Your task to perform on an android device: Clear all items from cart on ebay. Add "acer nitro" to the cart on ebay Image 0: 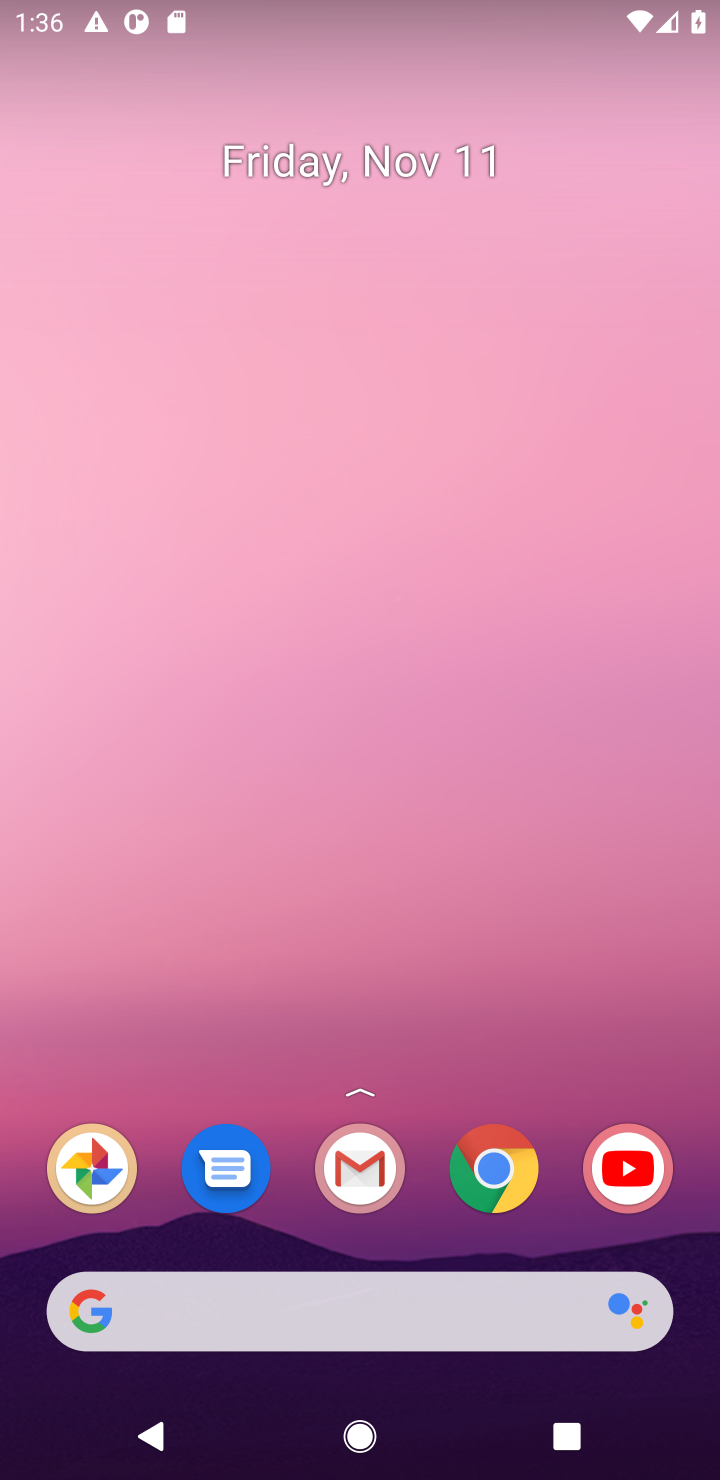
Step 0: click (497, 1171)
Your task to perform on an android device: Clear all items from cart on ebay. Add "acer nitro" to the cart on ebay Image 1: 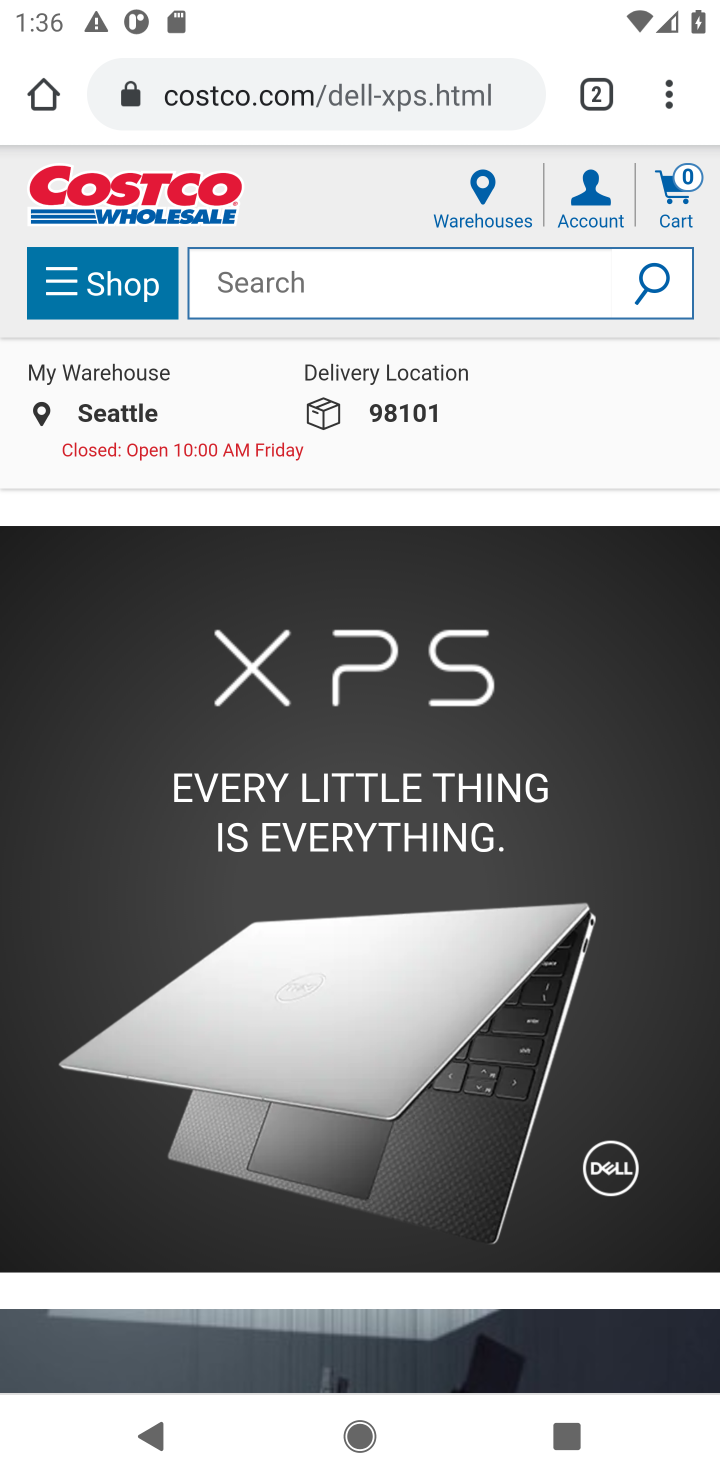
Step 1: click (342, 112)
Your task to perform on an android device: Clear all items from cart on ebay. Add "acer nitro" to the cart on ebay Image 2: 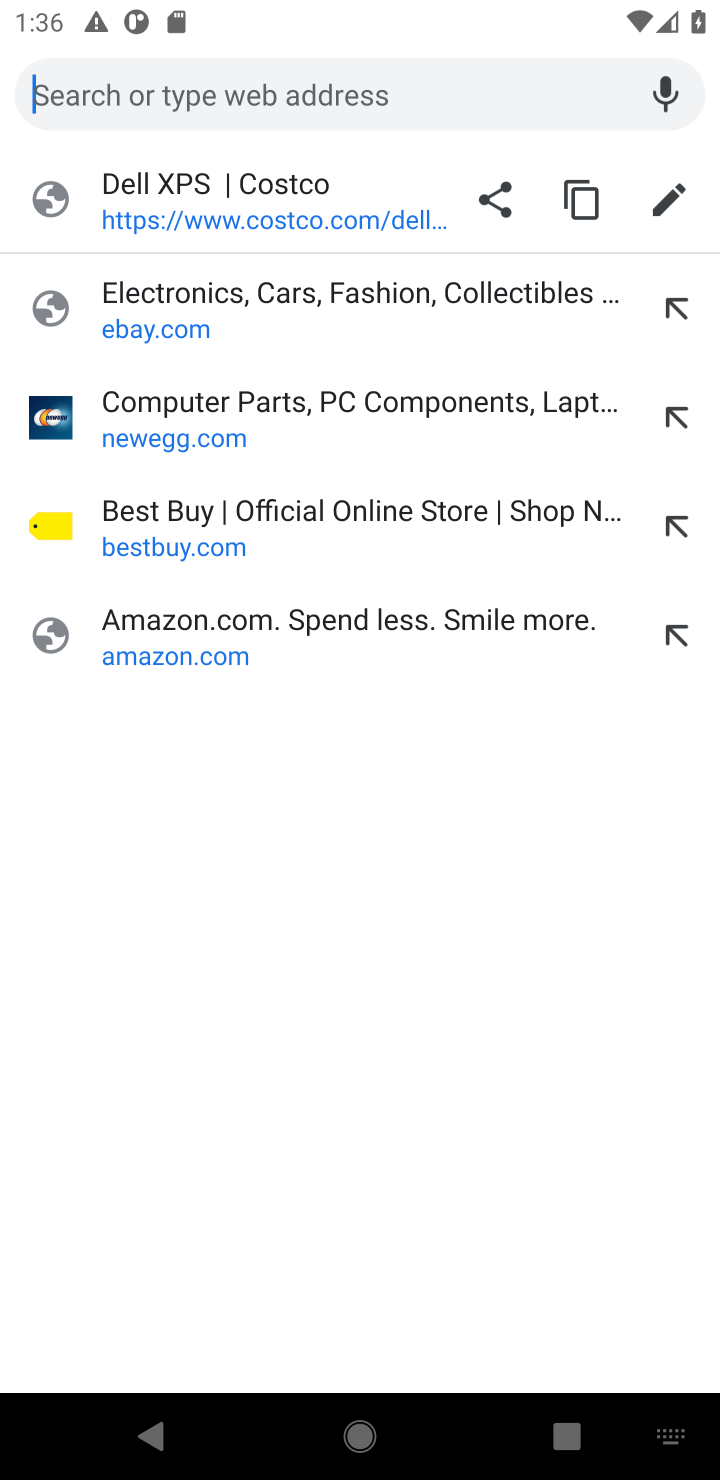
Step 2: click (135, 311)
Your task to perform on an android device: Clear all items from cart on ebay. Add "acer nitro" to the cart on ebay Image 3: 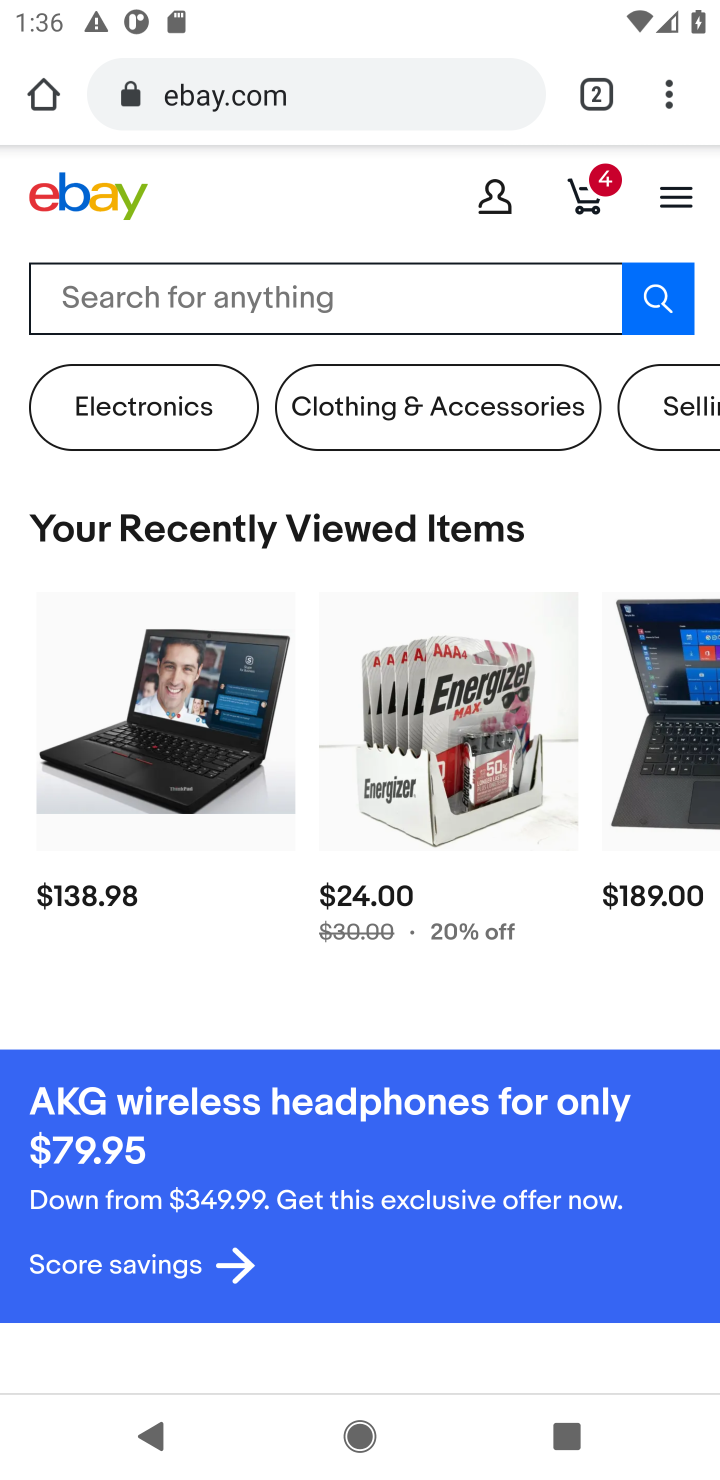
Step 3: click (580, 196)
Your task to perform on an android device: Clear all items from cart on ebay. Add "acer nitro" to the cart on ebay Image 4: 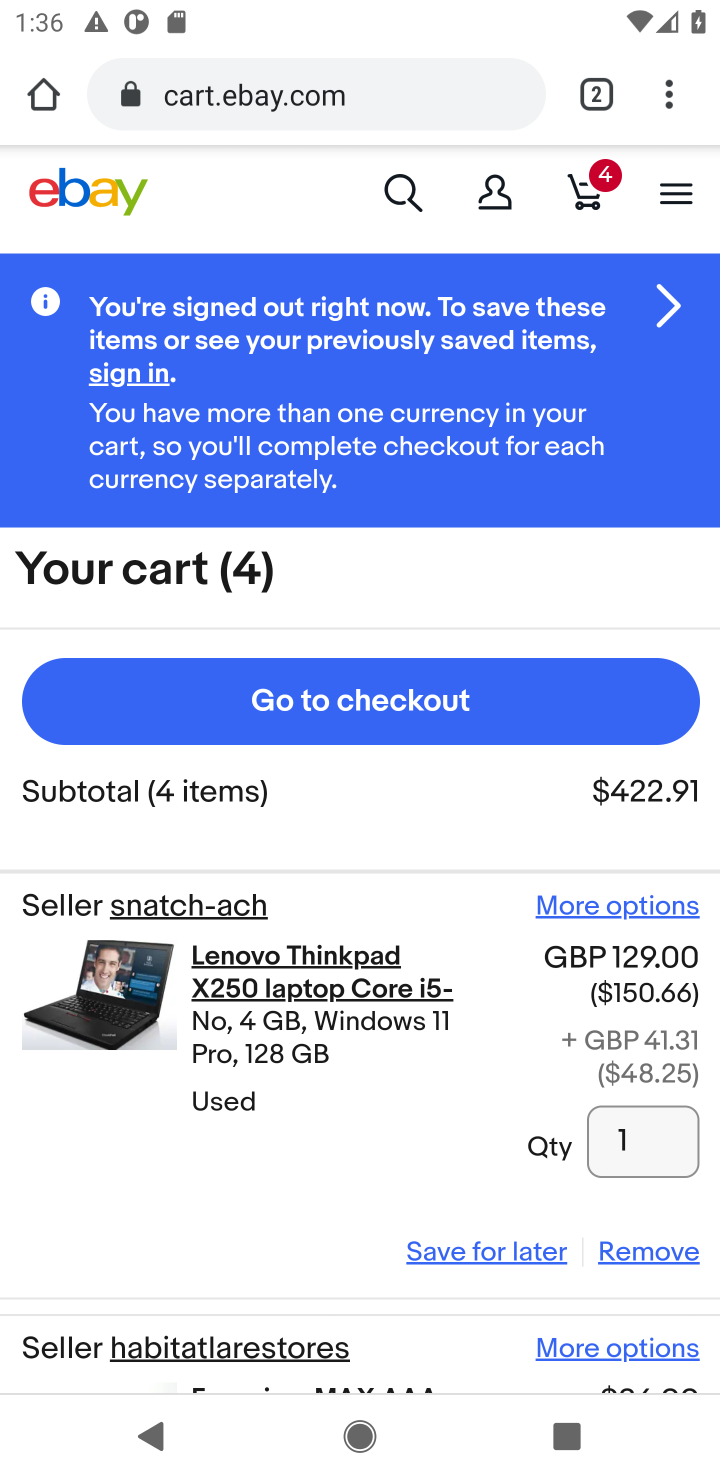
Step 4: click (645, 1256)
Your task to perform on an android device: Clear all items from cart on ebay. Add "acer nitro" to the cart on ebay Image 5: 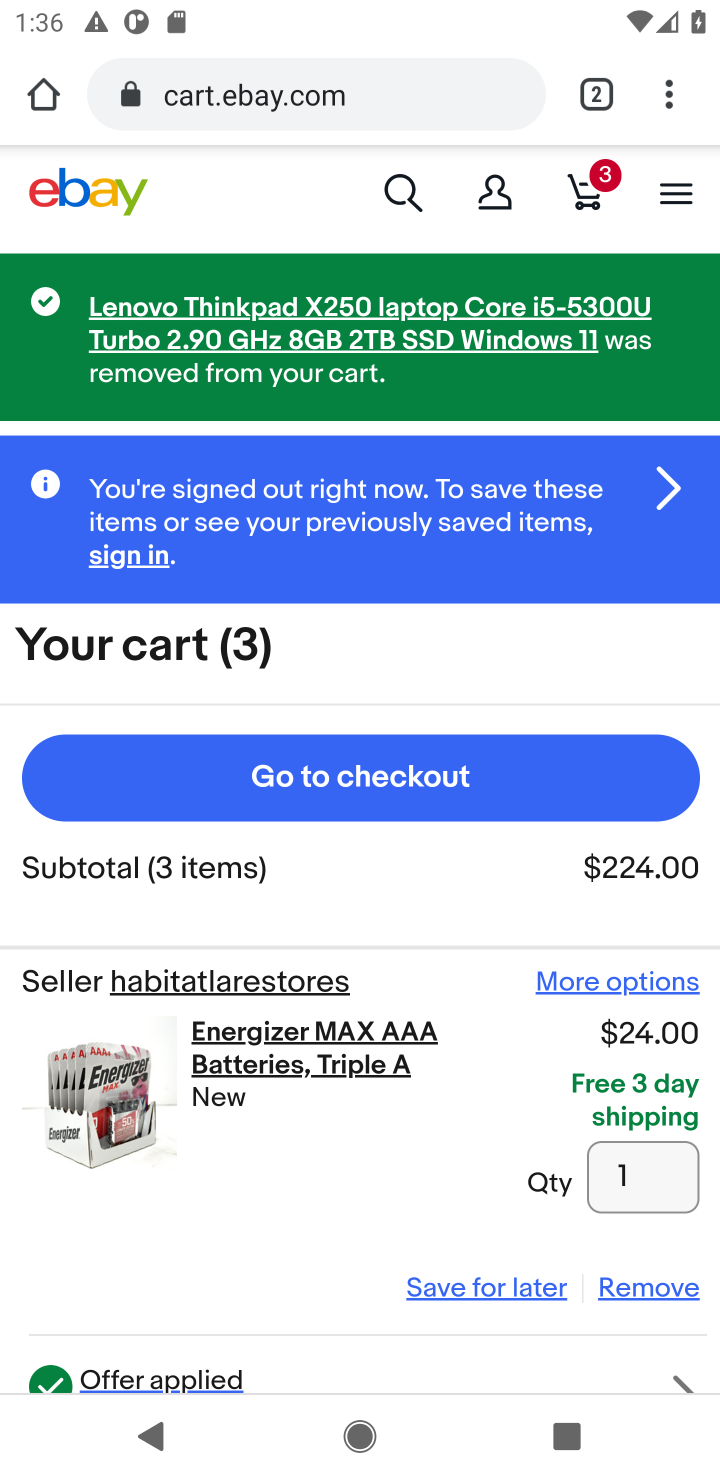
Step 5: click (645, 1284)
Your task to perform on an android device: Clear all items from cart on ebay. Add "acer nitro" to the cart on ebay Image 6: 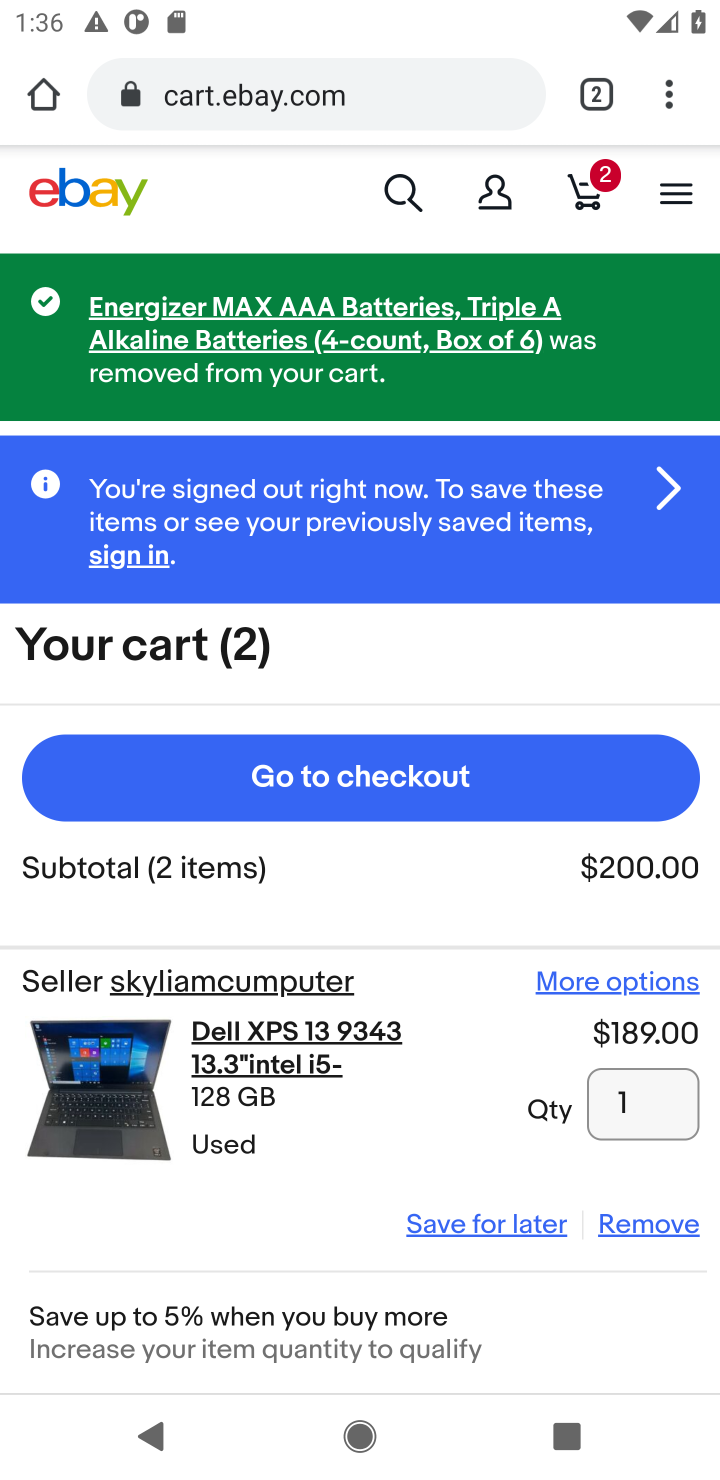
Step 6: click (637, 1238)
Your task to perform on an android device: Clear all items from cart on ebay. Add "acer nitro" to the cart on ebay Image 7: 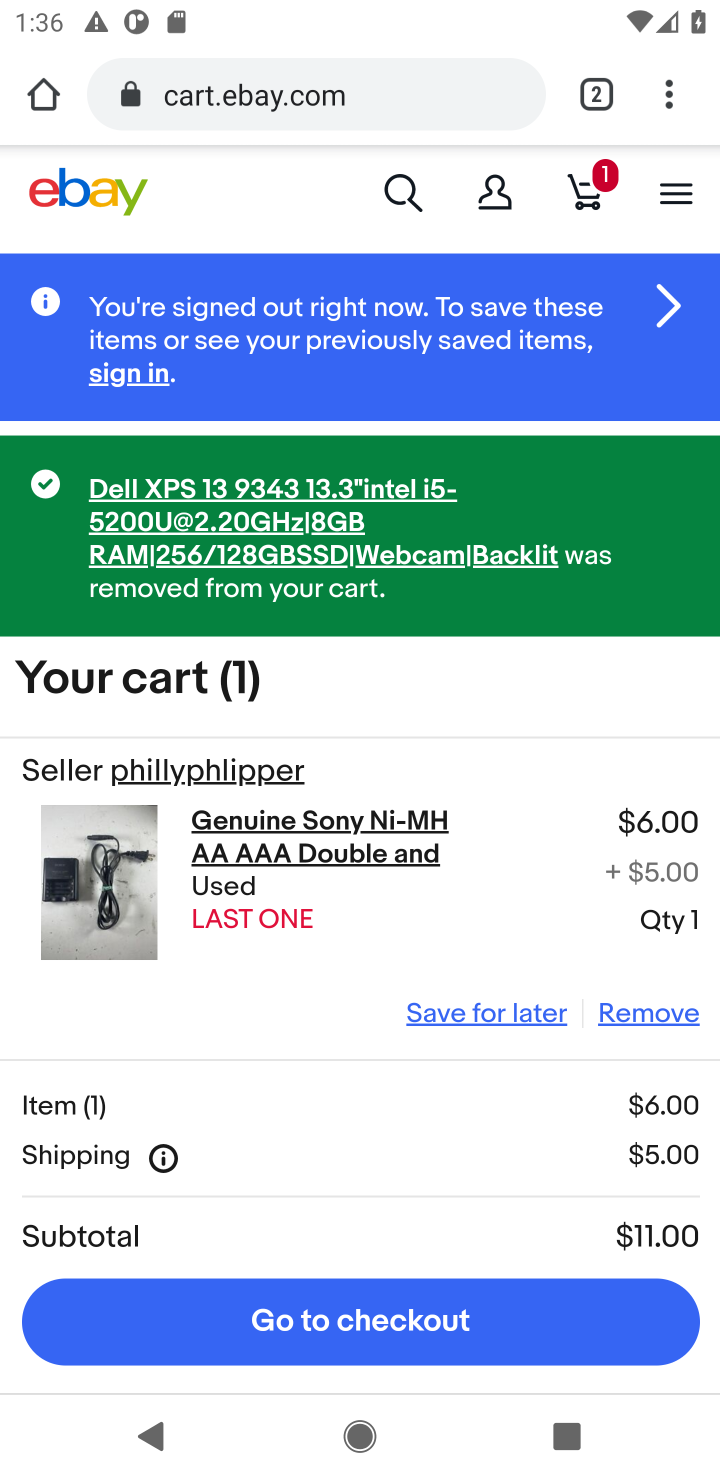
Step 7: click (635, 1018)
Your task to perform on an android device: Clear all items from cart on ebay. Add "acer nitro" to the cart on ebay Image 8: 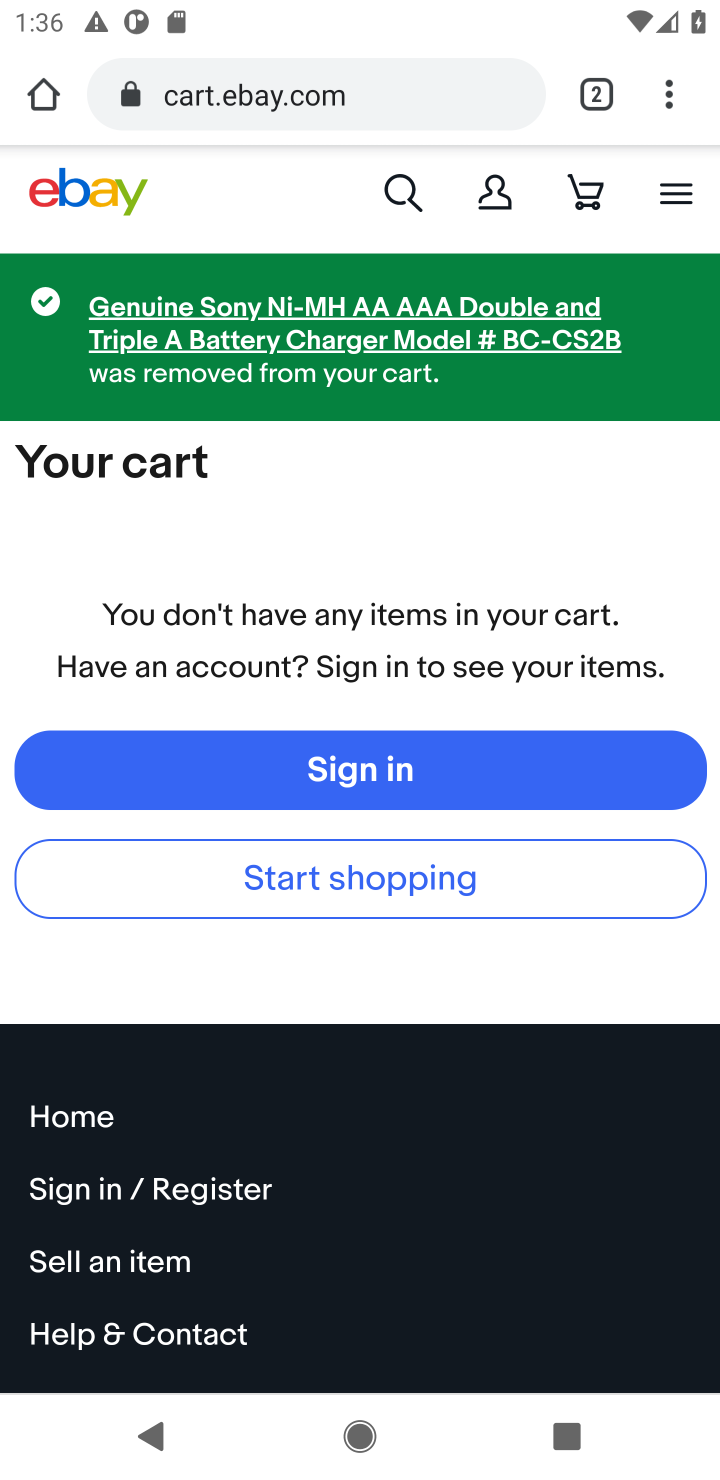
Step 8: click (415, 179)
Your task to perform on an android device: Clear all items from cart on ebay. Add "acer nitro" to the cart on ebay Image 9: 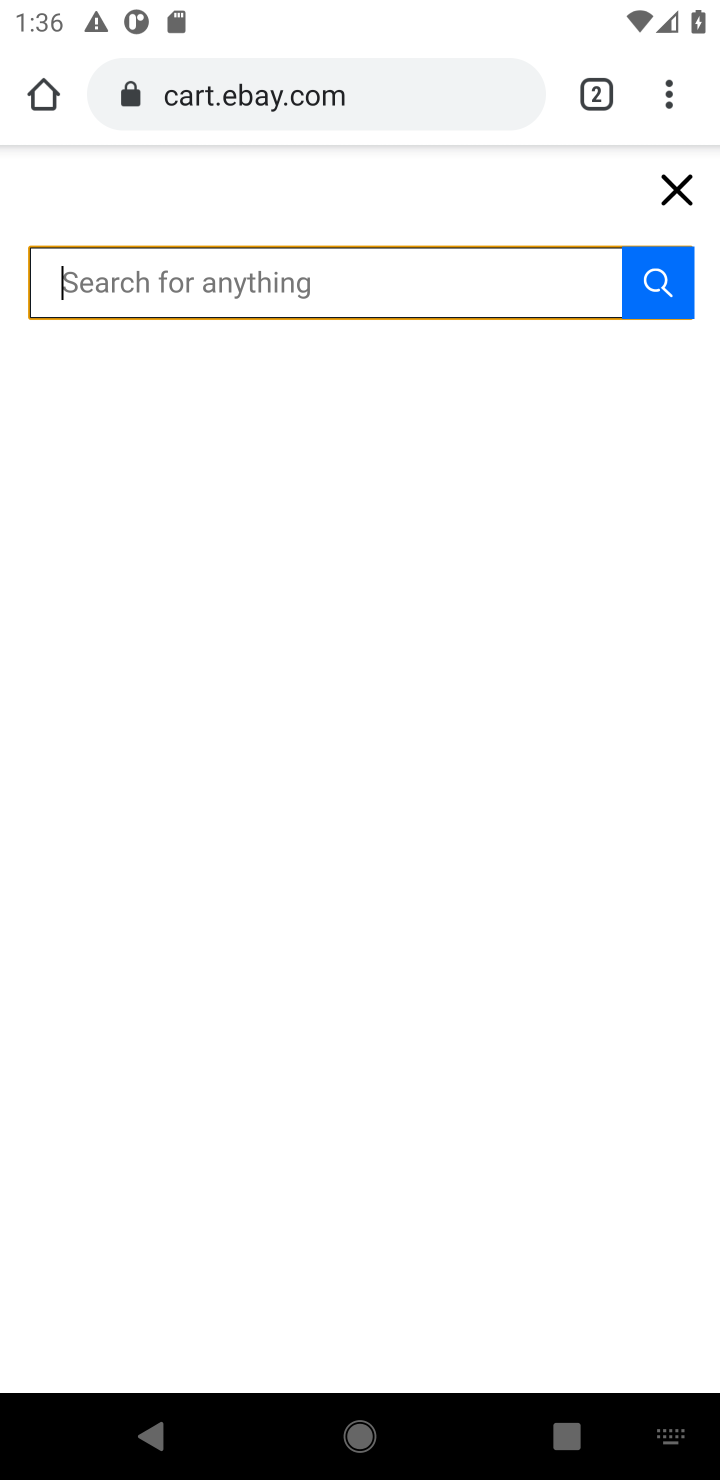
Step 9: type "acer nitro"
Your task to perform on an android device: Clear all items from cart on ebay. Add "acer nitro" to the cart on ebay Image 10: 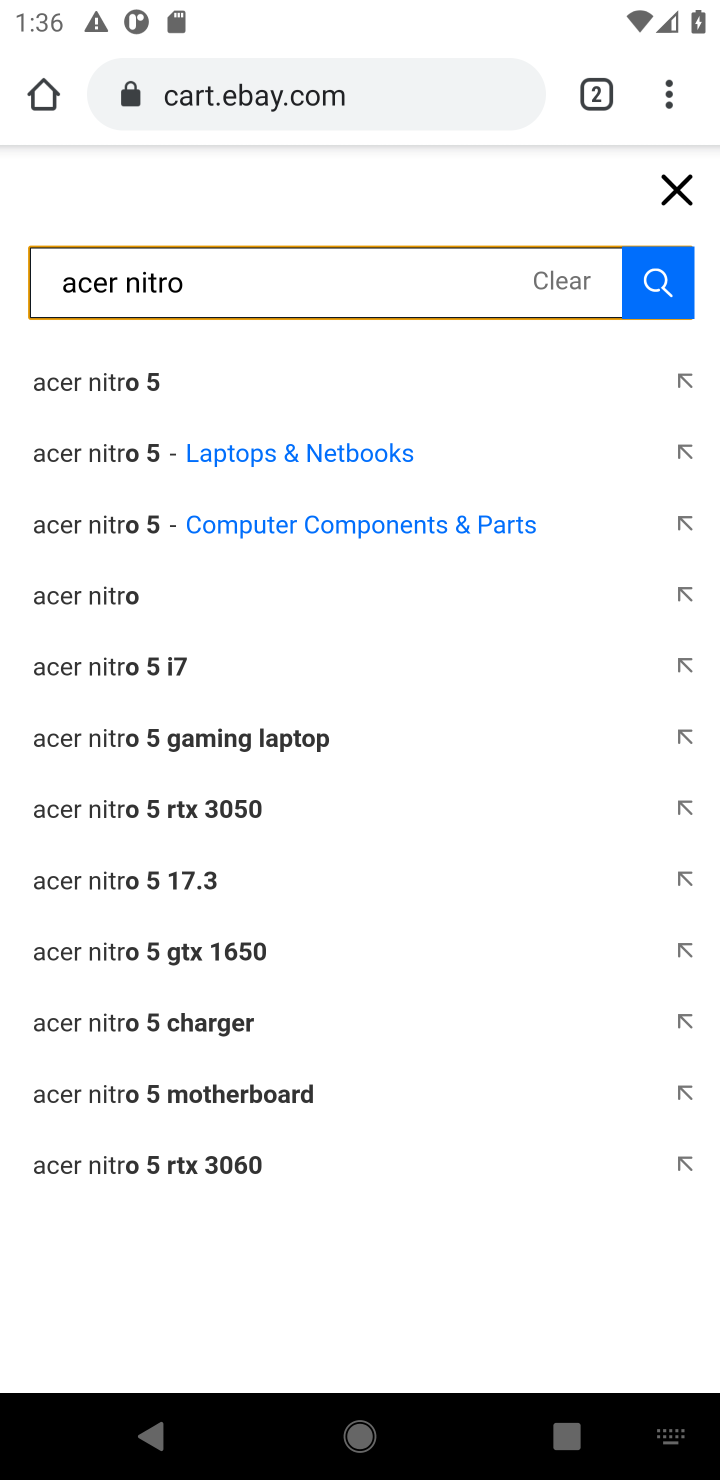
Step 10: click (94, 593)
Your task to perform on an android device: Clear all items from cart on ebay. Add "acer nitro" to the cart on ebay Image 11: 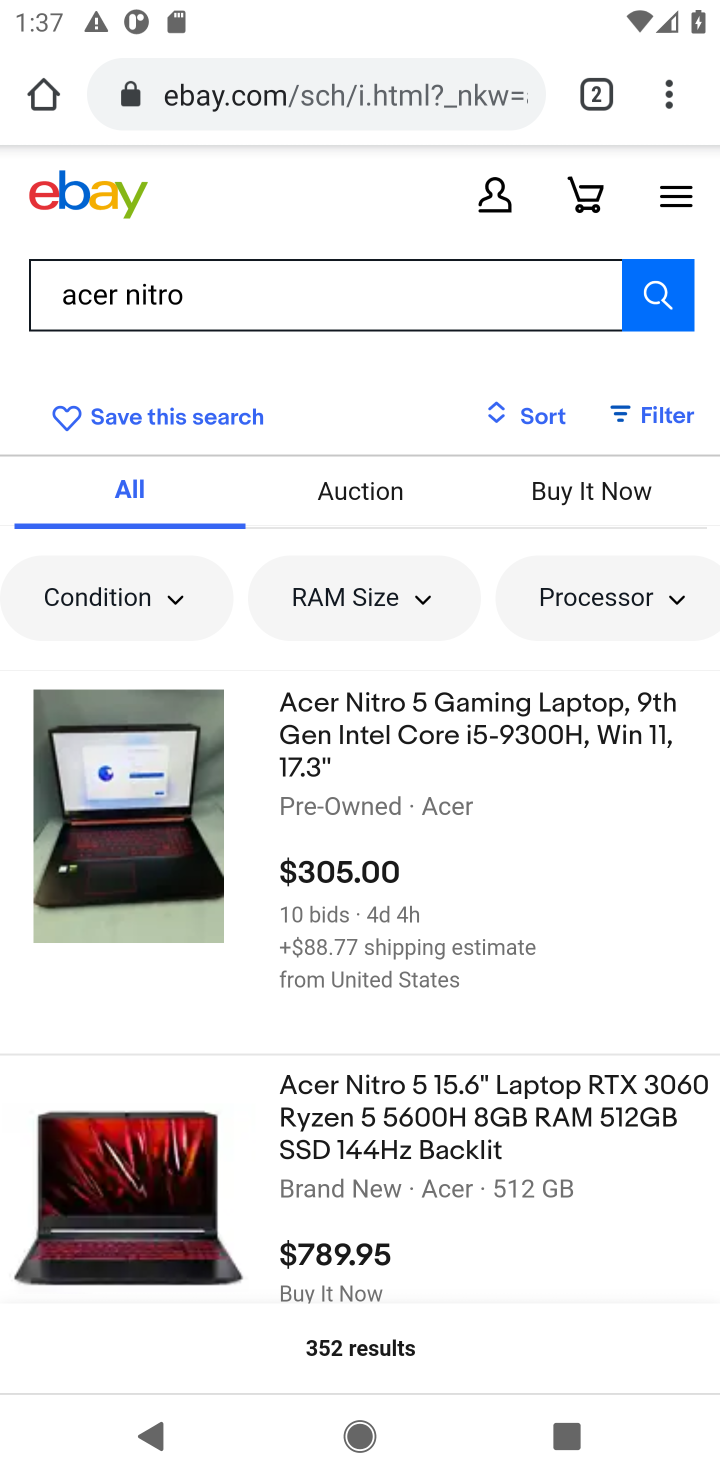
Step 11: click (140, 1195)
Your task to perform on an android device: Clear all items from cart on ebay. Add "acer nitro" to the cart on ebay Image 12: 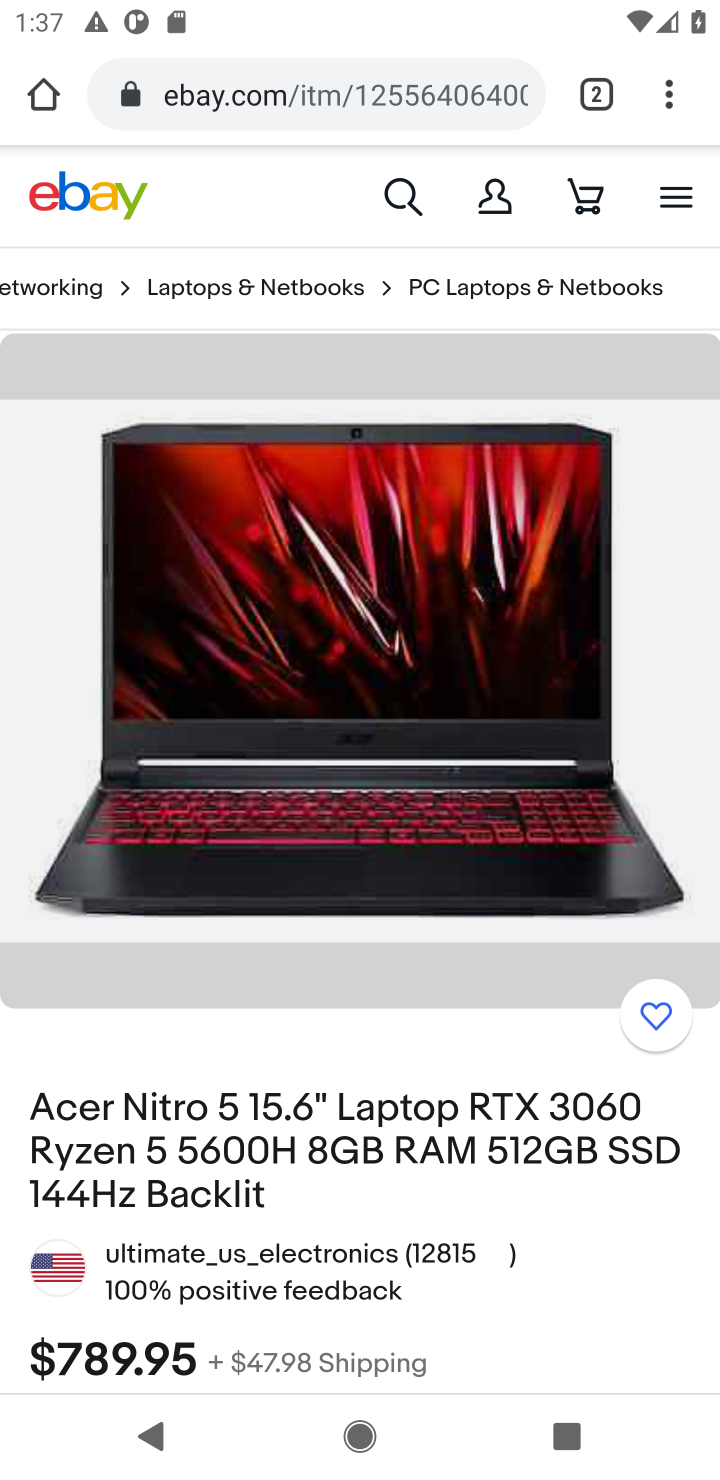
Step 12: drag from (281, 1206) to (301, 630)
Your task to perform on an android device: Clear all items from cart on ebay. Add "acer nitro" to the cart on ebay Image 13: 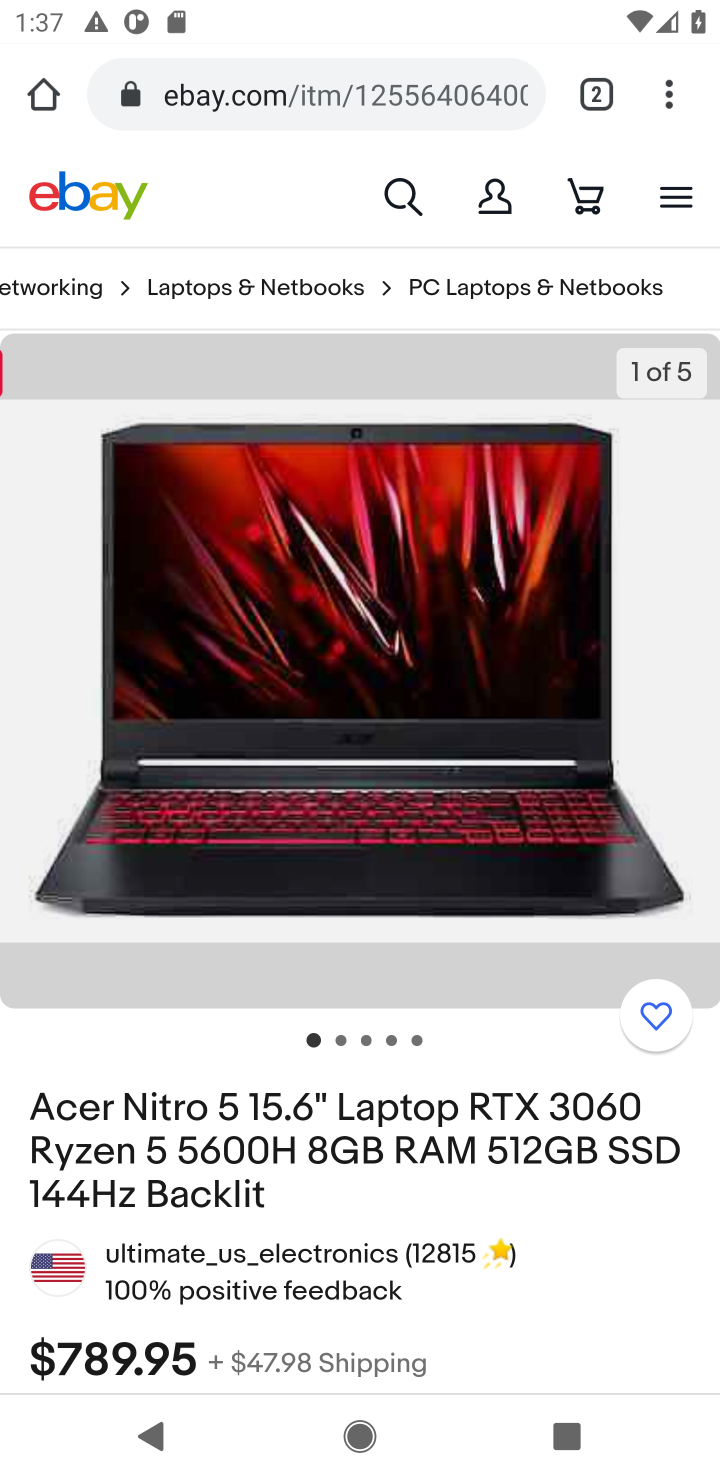
Step 13: drag from (364, 1022) to (358, 637)
Your task to perform on an android device: Clear all items from cart on ebay. Add "acer nitro" to the cart on ebay Image 14: 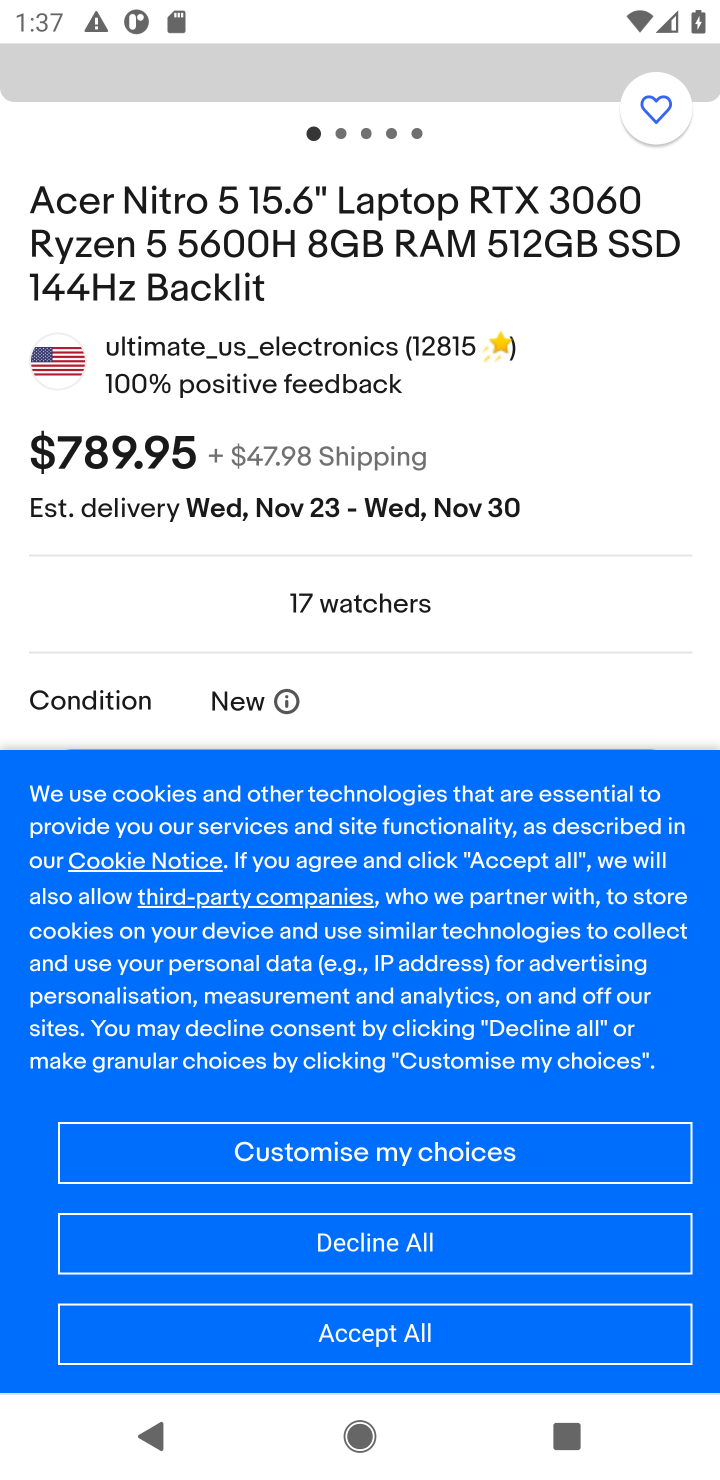
Step 14: click (393, 1257)
Your task to perform on an android device: Clear all items from cart on ebay. Add "acer nitro" to the cart on ebay Image 15: 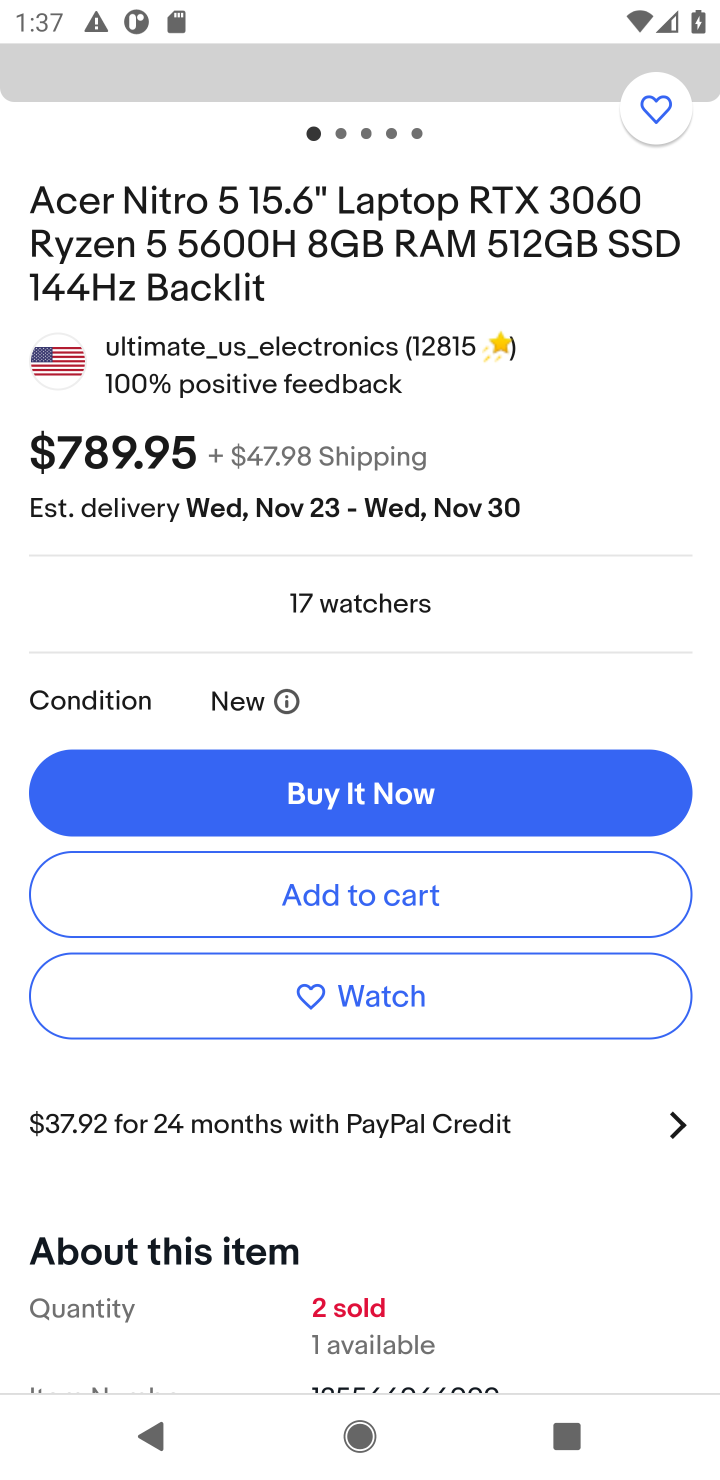
Step 15: click (338, 883)
Your task to perform on an android device: Clear all items from cart on ebay. Add "acer nitro" to the cart on ebay Image 16: 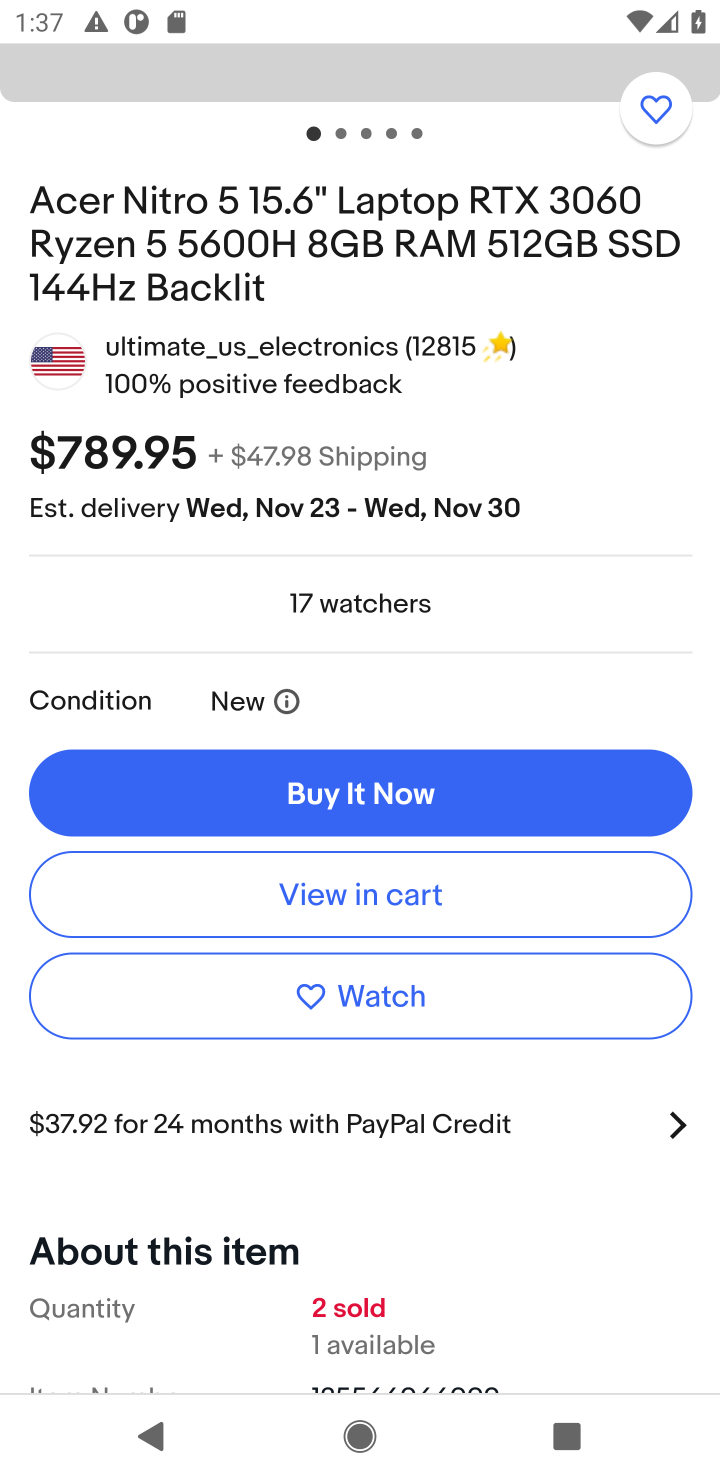
Step 16: task complete